Your task to perform on an android device: turn pop-ups on in chrome Image 0: 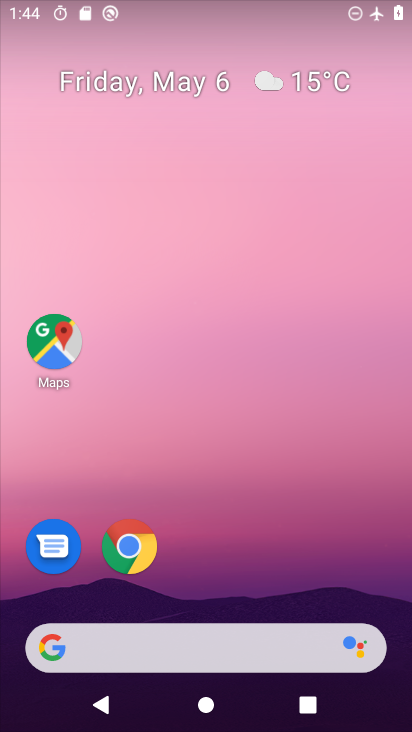
Step 0: click (136, 548)
Your task to perform on an android device: turn pop-ups on in chrome Image 1: 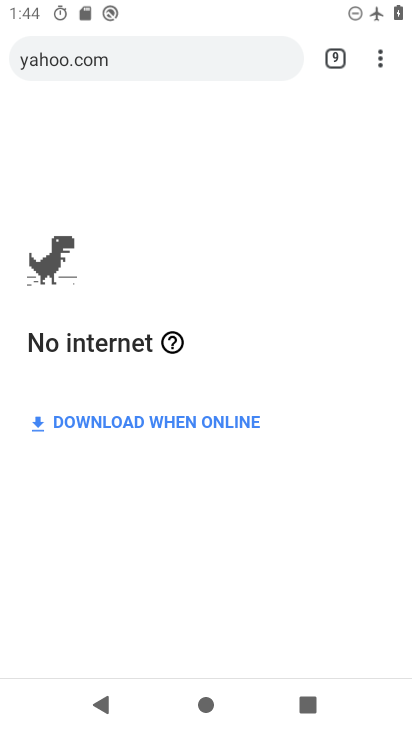
Step 1: click (376, 53)
Your task to perform on an android device: turn pop-ups on in chrome Image 2: 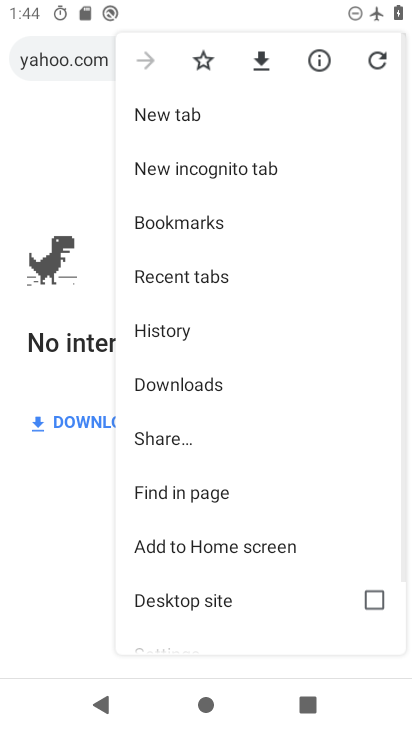
Step 2: drag from (210, 495) to (234, 208)
Your task to perform on an android device: turn pop-ups on in chrome Image 3: 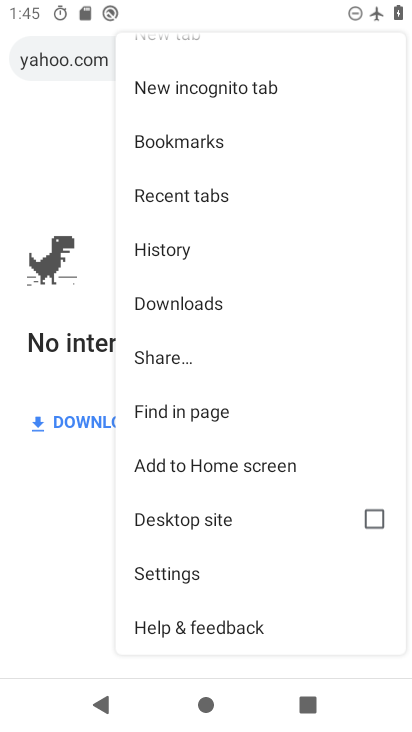
Step 3: click (182, 578)
Your task to perform on an android device: turn pop-ups on in chrome Image 4: 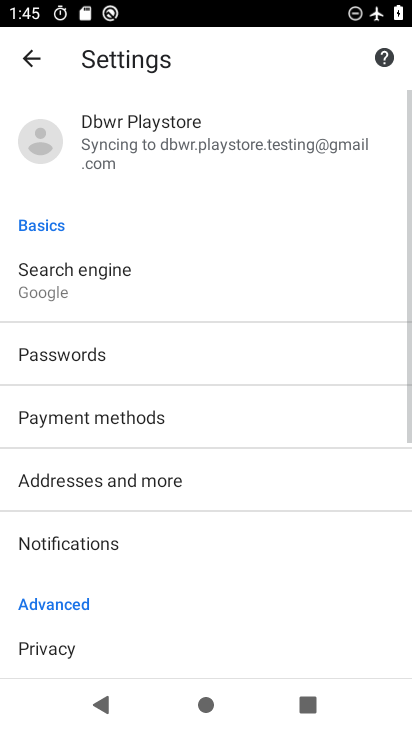
Step 4: drag from (201, 509) to (240, 302)
Your task to perform on an android device: turn pop-ups on in chrome Image 5: 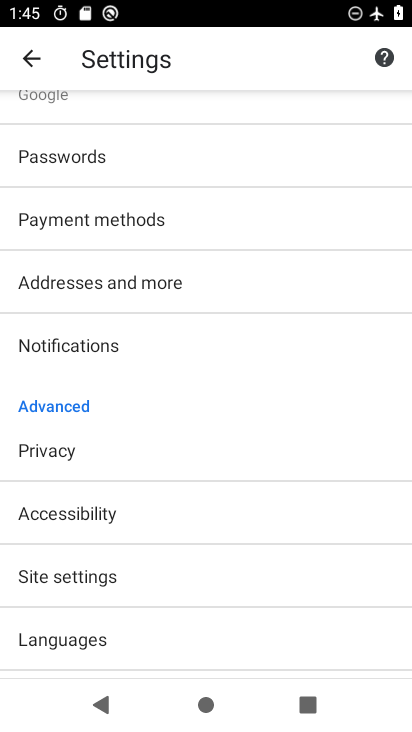
Step 5: drag from (192, 578) to (266, 298)
Your task to perform on an android device: turn pop-ups on in chrome Image 6: 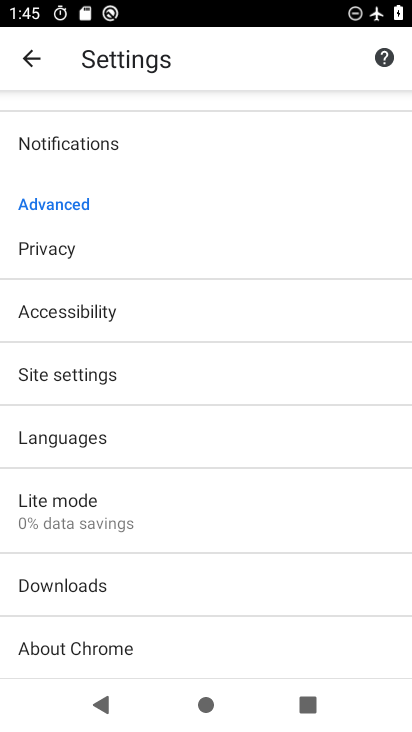
Step 6: click (139, 374)
Your task to perform on an android device: turn pop-ups on in chrome Image 7: 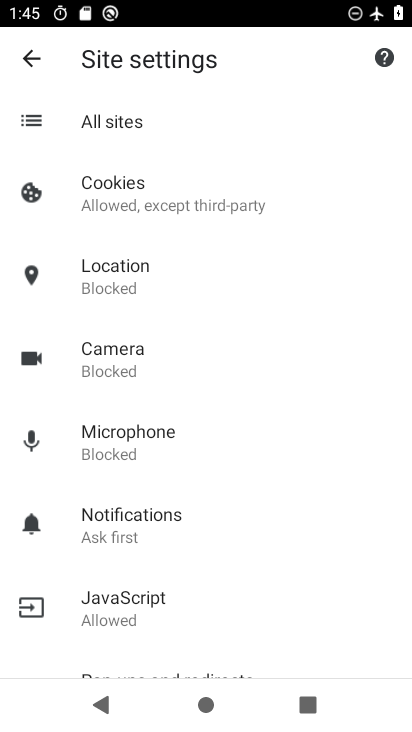
Step 7: drag from (210, 536) to (245, 328)
Your task to perform on an android device: turn pop-ups on in chrome Image 8: 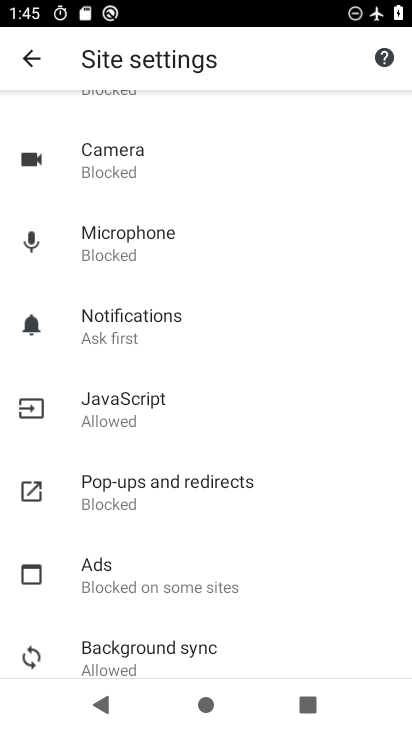
Step 8: click (177, 491)
Your task to perform on an android device: turn pop-ups on in chrome Image 9: 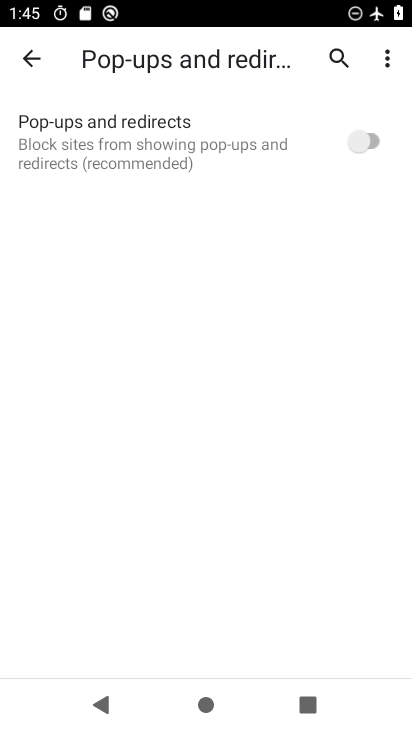
Step 9: click (374, 138)
Your task to perform on an android device: turn pop-ups on in chrome Image 10: 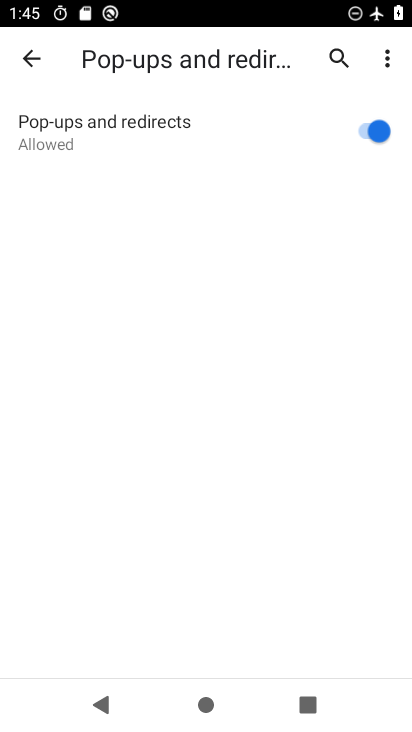
Step 10: task complete